Your task to perform on an android device: turn on the 24-hour format for clock Image 0: 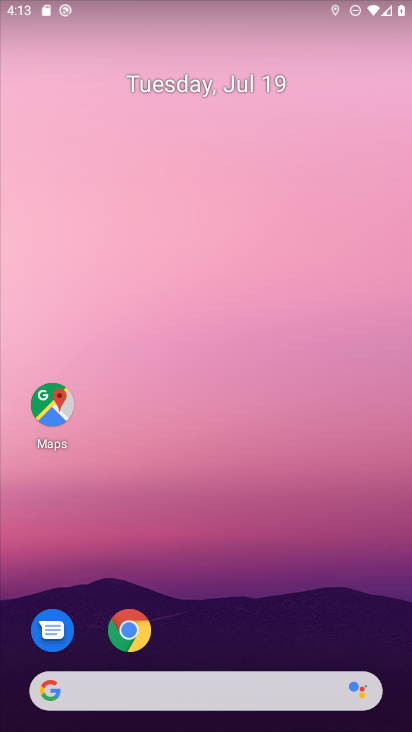
Step 0: press back button
Your task to perform on an android device: turn on the 24-hour format for clock Image 1: 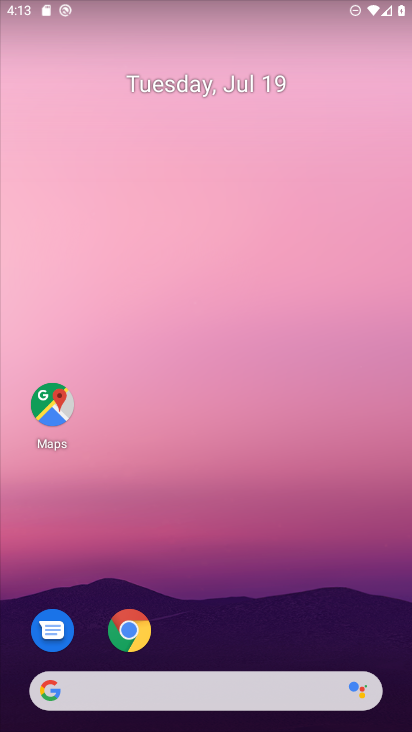
Step 1: drag from (212, 550) to (127, 119)
Your task to perform on an android device: turn on the 24-hour format for clock Image 2: 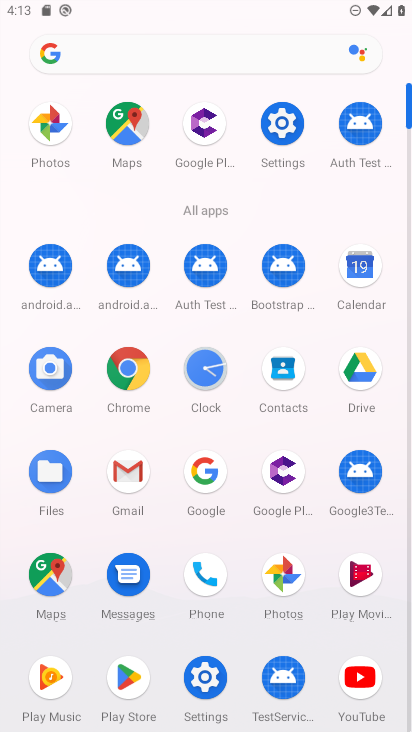
Step 2: click (199, 363)
Your task to perform on an android device: turn on the 24-hour format for clock Image 3: 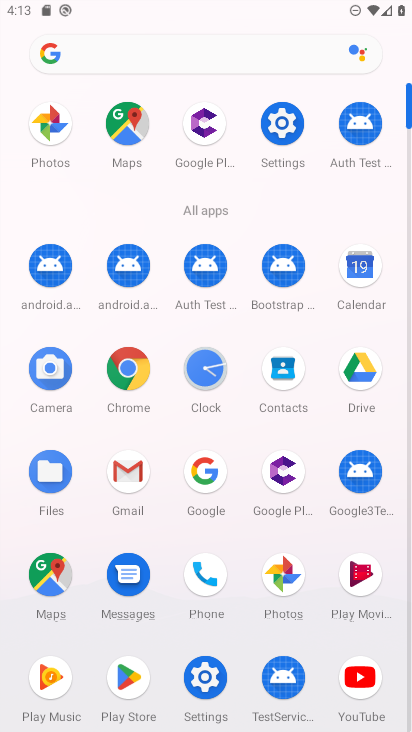
Step 3: click (194, 368)
Your task to perform on an android device: turn on the 24-hour format for clock Image 4: 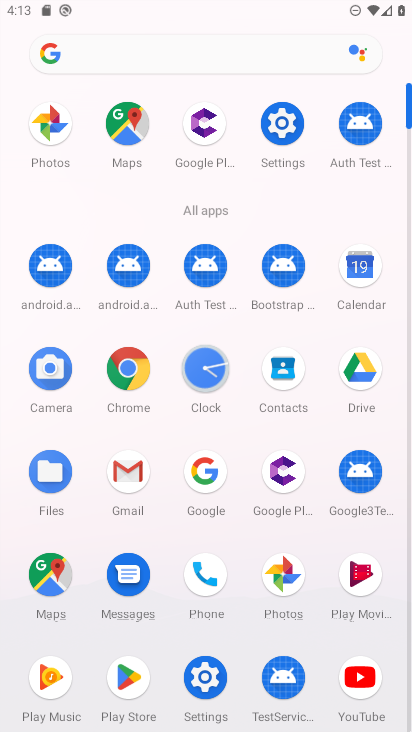
Step 4: click (194, 368)
Your task to perform on an android device: turn on the 24-hour format for clock Image 5: 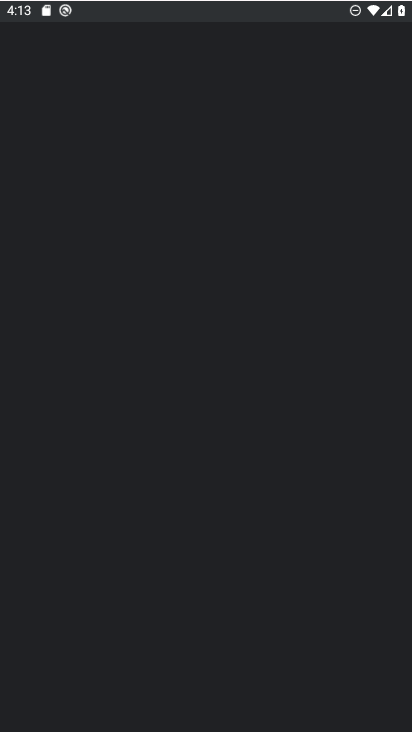
Step 5: click (194, 368)
Your task to perform on an android device: turn on the 24-hour format for clock Image 6: 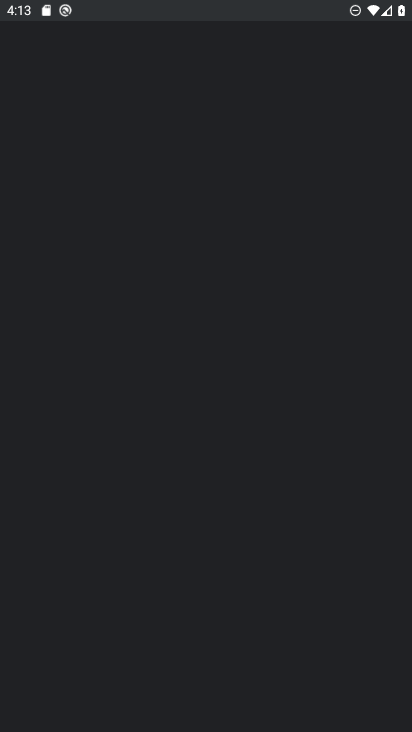
Step 6: click (194, 368)
Your task to perform on an android device: turn on the 24-hour format for clock Image 7: 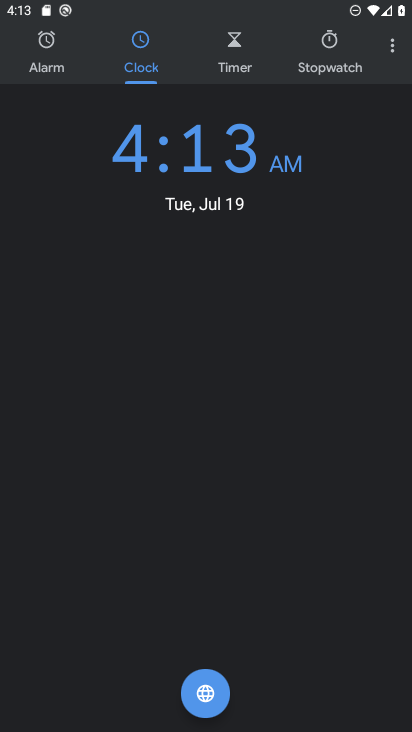
Step 7: drag from (390, 55) to (357, 88)
Your task to perform on an android device: turn on the 24-hour format for clock Image 8: 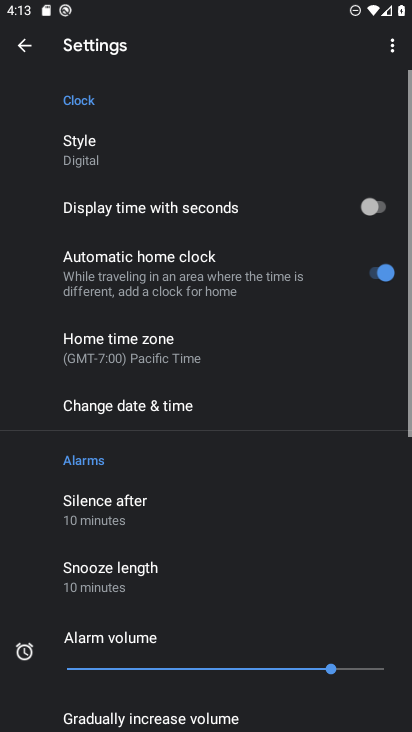
Step 8: click (295, 87)
Your task to perform on an android device: turn on the 24-hour format for clock Image 9: 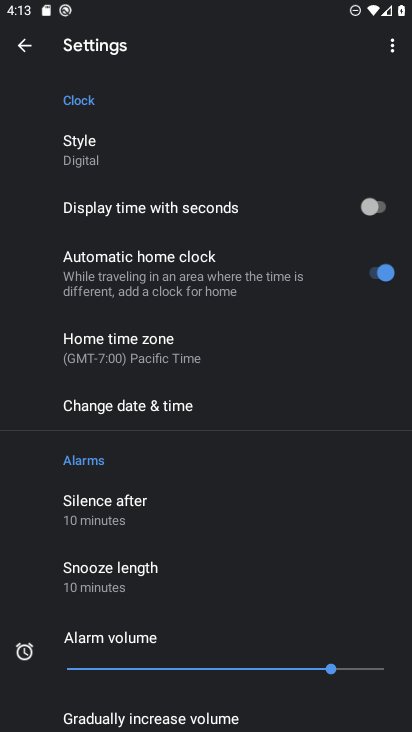
Step 9: click (121, 409)
Your task to perform on an android device: turn on the 24-hour format for clock Image 10: 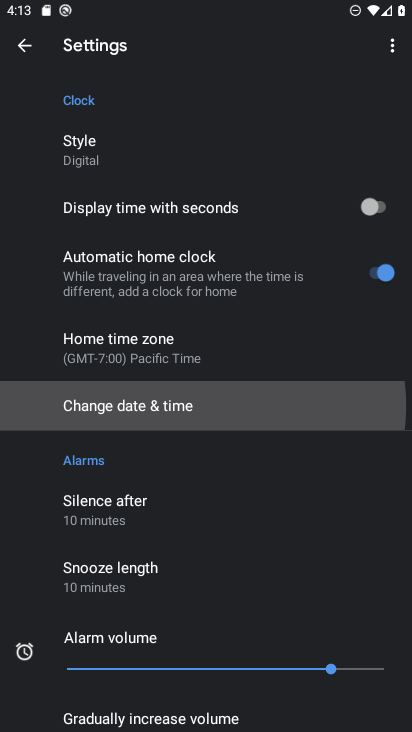
Step 10: click (121, 409)
Your task to perform on an android device: turn on the 24-hour format for clock Image 11: 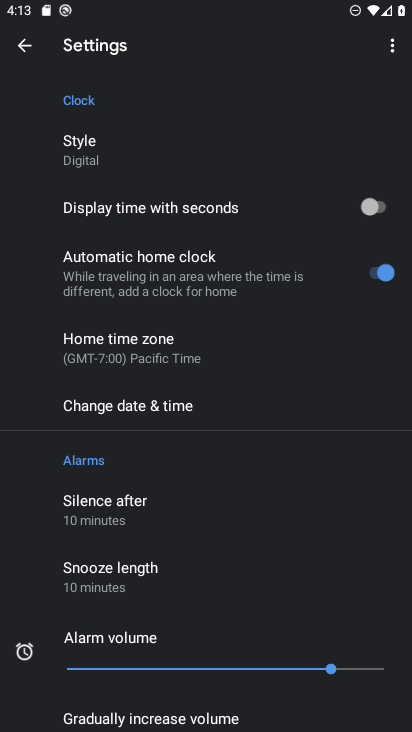
Step 11: click (121, 409)
Your task to perform on an android device: turn on the 24-hour format for clock Image 12: 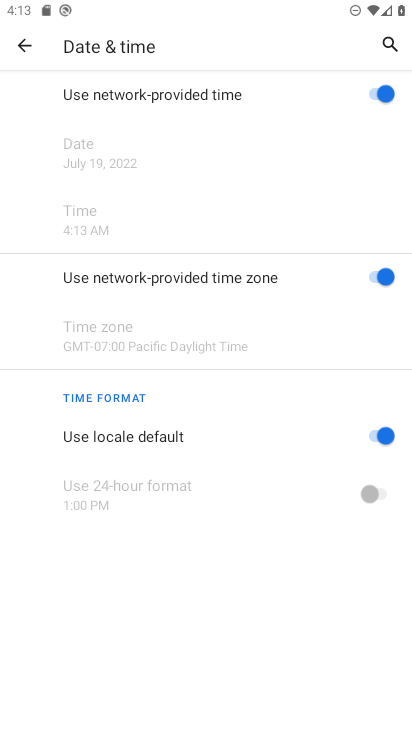
Step 12: click (371, 487)
Your task to perform on an android device: turn on the 24-hour format for clock Image 13: 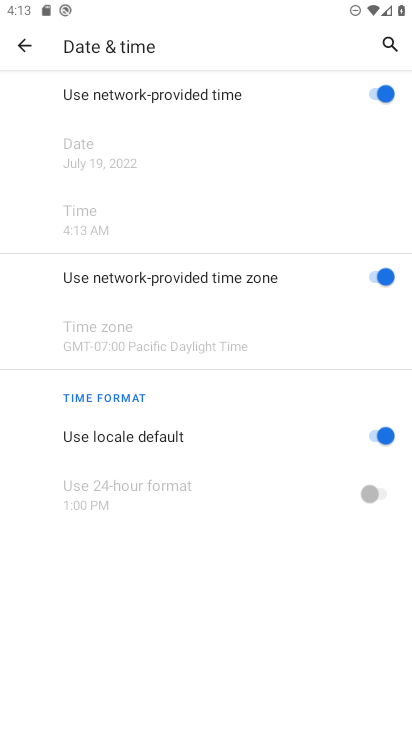
Step 13: click (372, 491)
Your task to perform on an android device: turn on the 24-hour format for clock Image 14: 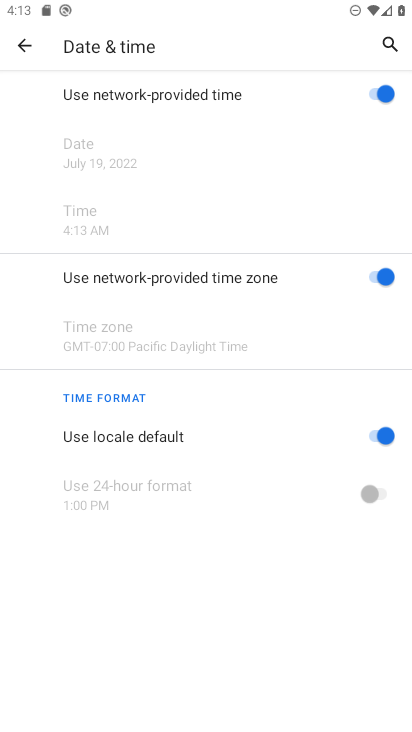
Step 14: click (372, 495)
Your task to perform on an android device: turn on the 24-hour format for clock Image 15: 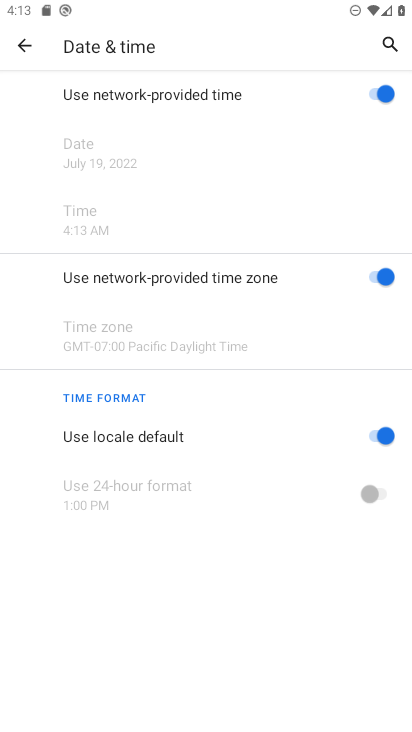
Step 15: click (386, 427)
Your task to perform on an android device: turn on the 24-hour format for clock Image 16: 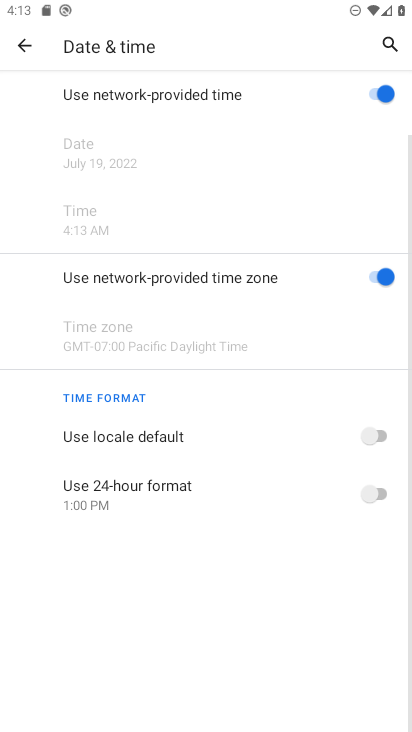
Step 16: click (374, 497)
Your task to perform on an android device: turn on the 24-hour format for clock Image 17: 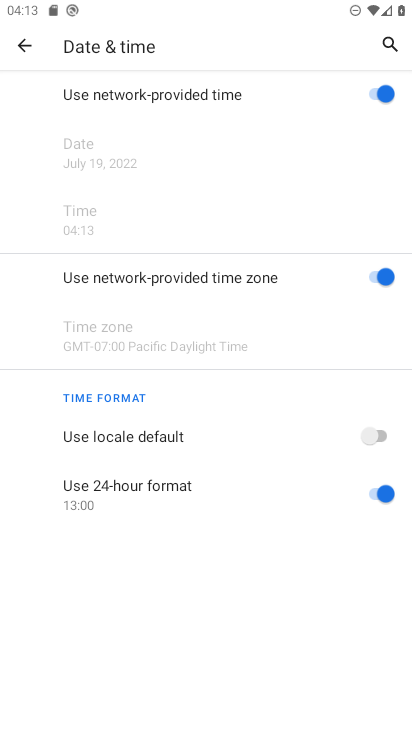
Step 17: task complete